Your task to perform on an android device: Open the map Image 0: 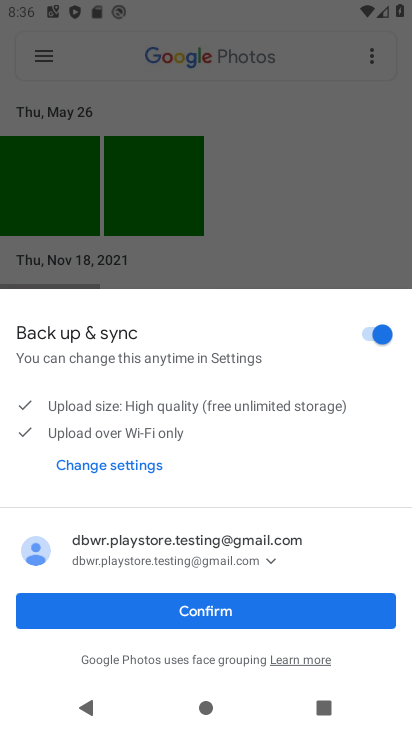
Step 0: press home button
Your task to perform on an android device: Open the map Image 1: 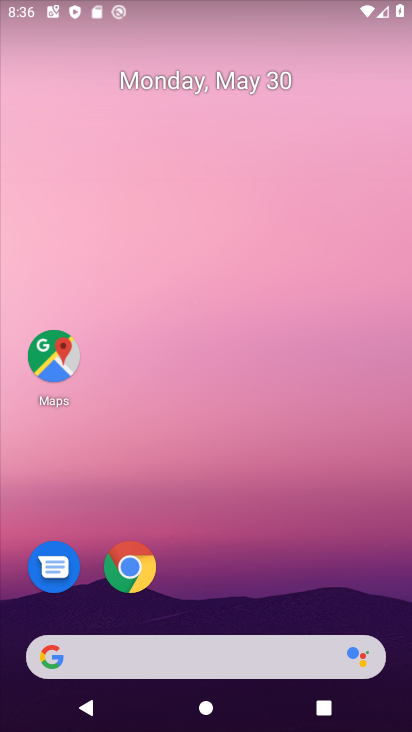
Step 1: click (47, 357)
Your task to perform on an android device: Open the map Image 2: 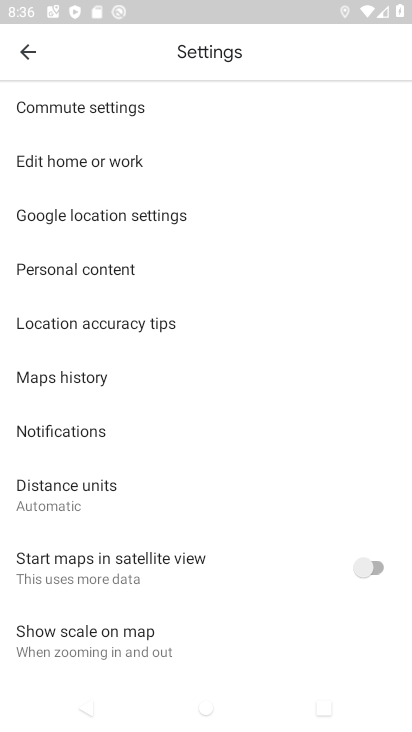
Step 2: click (24, 65)
Your task to perform on an android device: Open the map Image 3: 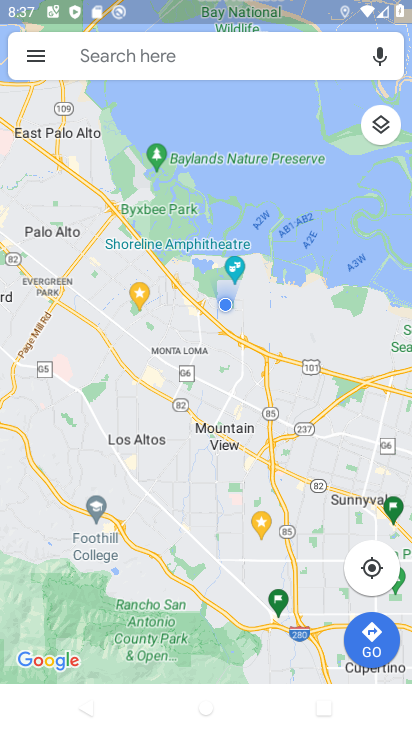
Step 3: task complete